Your task to perform on an android device: Go to battery settings Image 0: 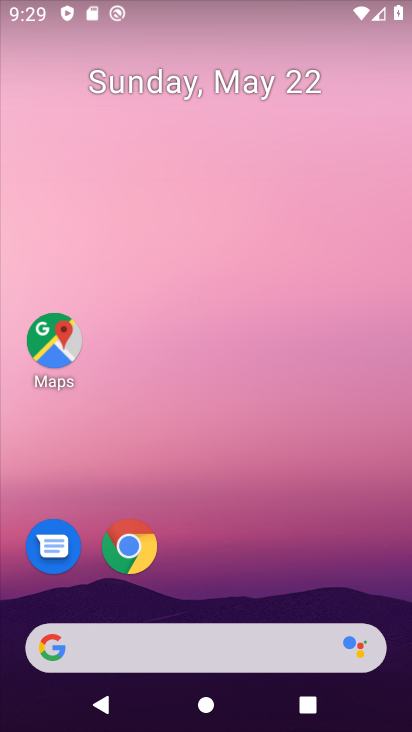
Step 0: drag from (283, 537) to (242, 107)
Your task to perform on an android device: Go to battery settings Image 1: 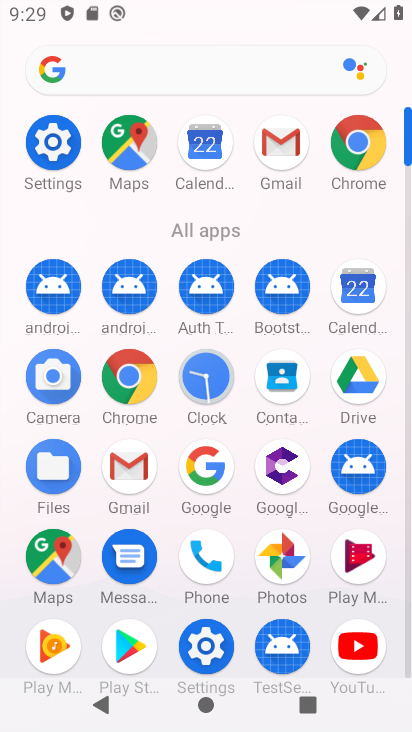
Step 1: click (71, 151)
Your task to perform on an android device: Go to battery settings Image 2: 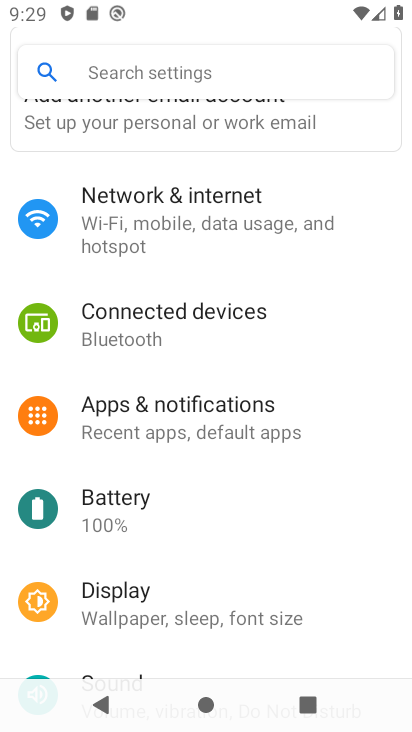
Step 2: click (133, 514)
Your task to perform on an android device: Go to battery settings Image 3: 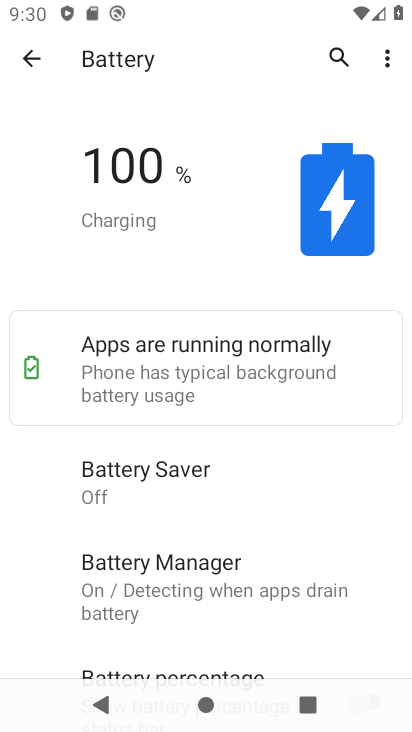
Step 3: task complete